Your task to perform on an android device: see sites visited before in the chrome app Image 0: 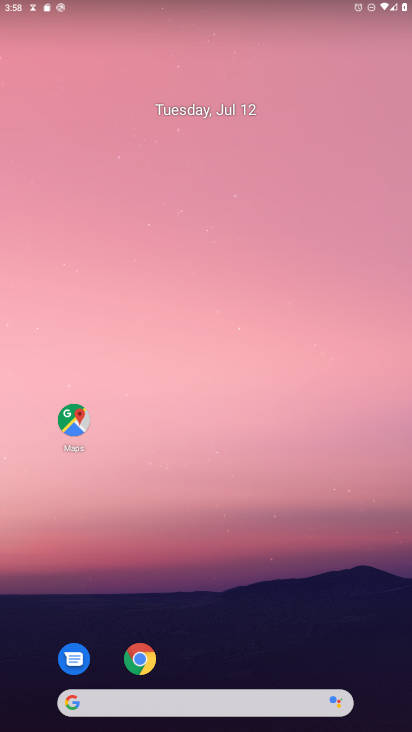
Step 0: drag from (190, 627) to (163, 3)
Your task to perform on an android device: see sites visited before in the chrome app Image 1: 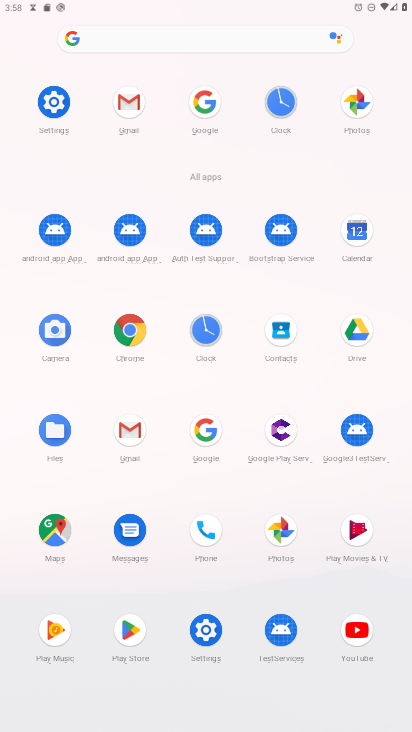
Step 1: click (125, 336)
Your task to perform on an android device: see sites visited before in the chrome app Image 2: 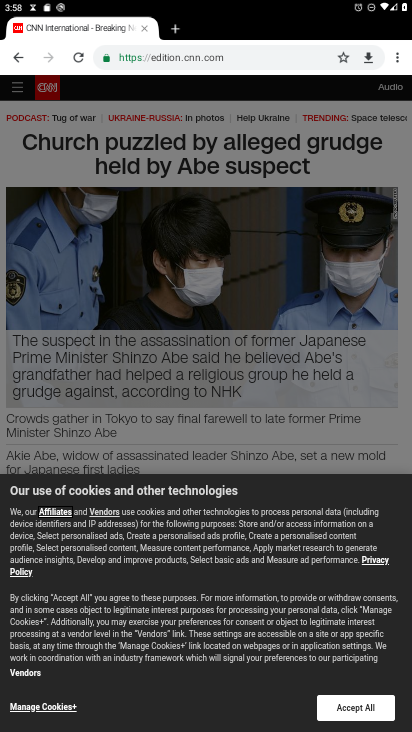
Step 2: click (401, 54)
Your task to perform on an android device: see sites visited before in the chrome app Image 3: 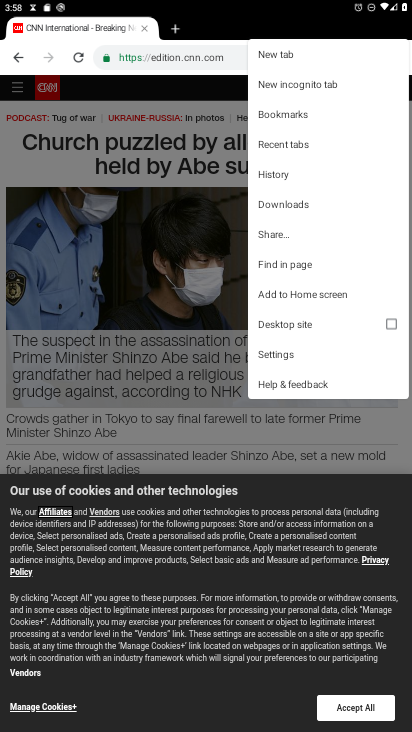
Step 3: click (277, 174)
Your task to perform on an android device: see sites visited before in the chrome app Image 4: 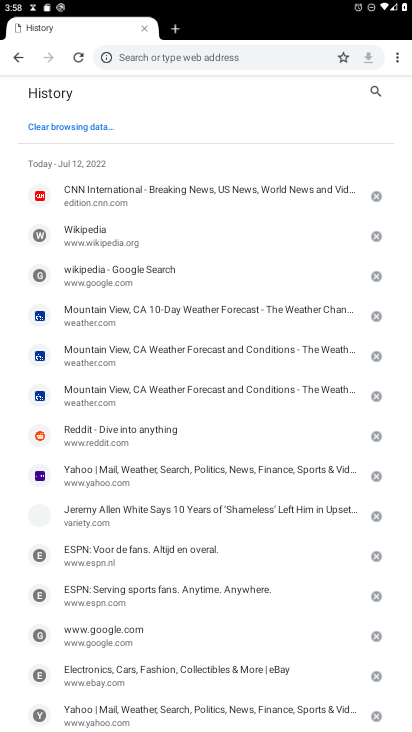
Step 4: task complete